Your task to perform on an android device: Open internet settings Image 0: 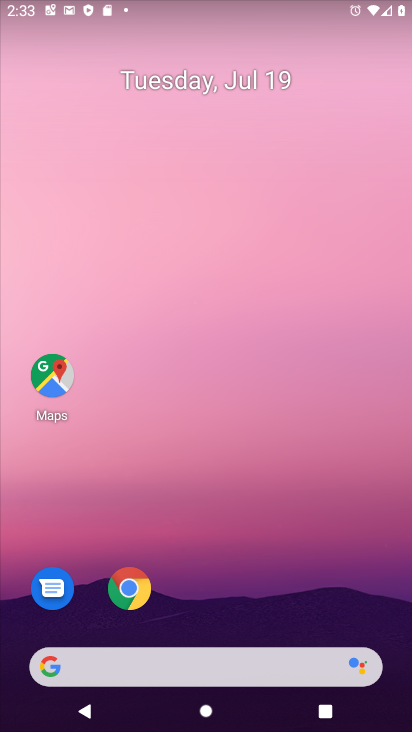
Step 0: drag from (324, 597) to (254, 71)
Your task to perform on an android device: Open internet settings Image 1: 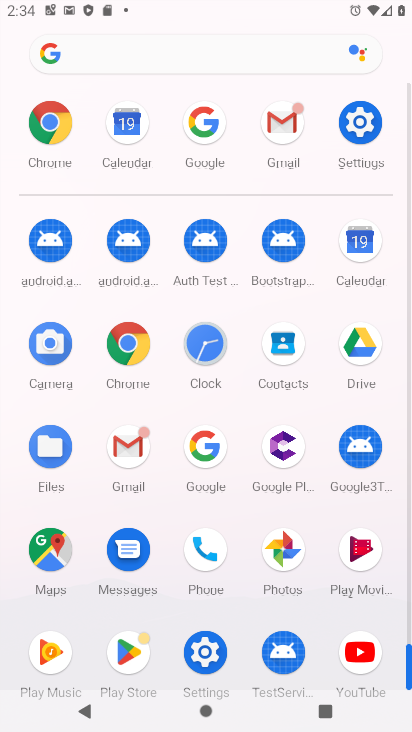
Step 1: click (201, 649)
Your task to perform on an android device: Open internet settings Image 2: 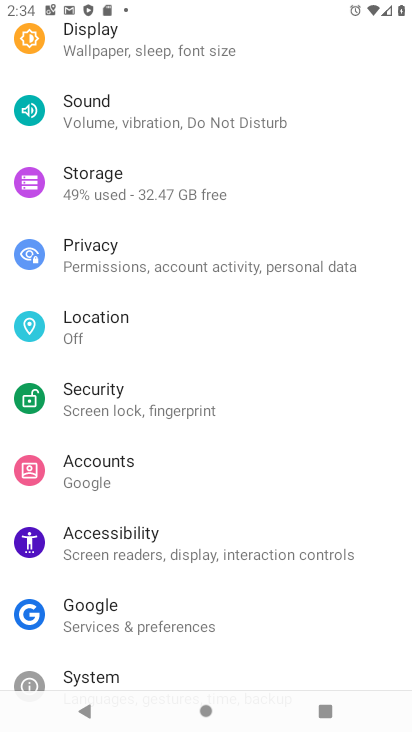
Step 2: drag from (123, 109) to (218, 578)
Your task to perform on an android device: Open internet settings Image 3: 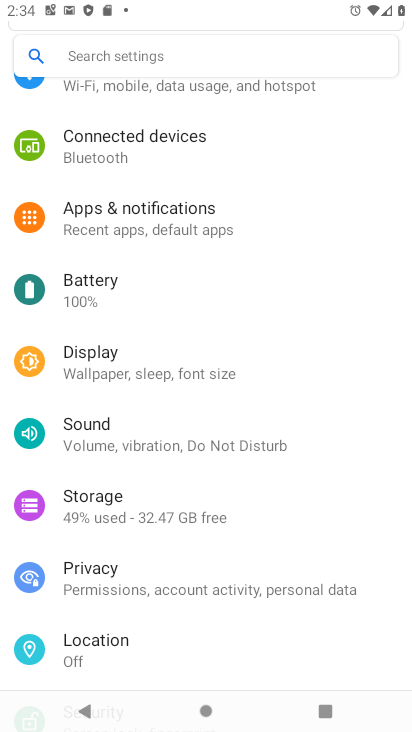
Step 3: drag from (139, 114) to (220, 605)
Your task to perform on an android device: Open internet settings Image 4: 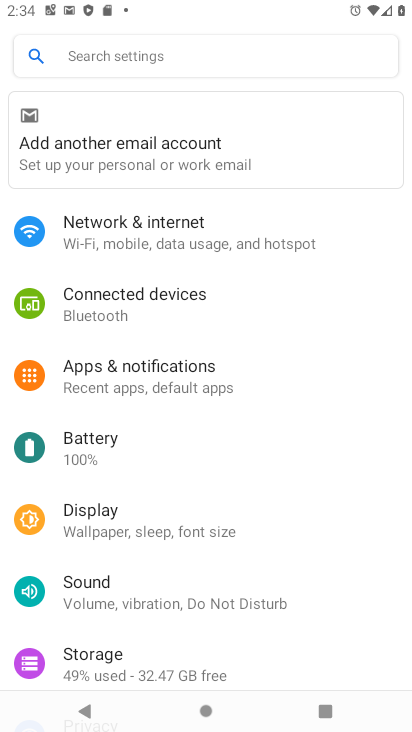
Step 4: click (156, 242)
Your task to perform on an android device: Open internet settings Image 5: 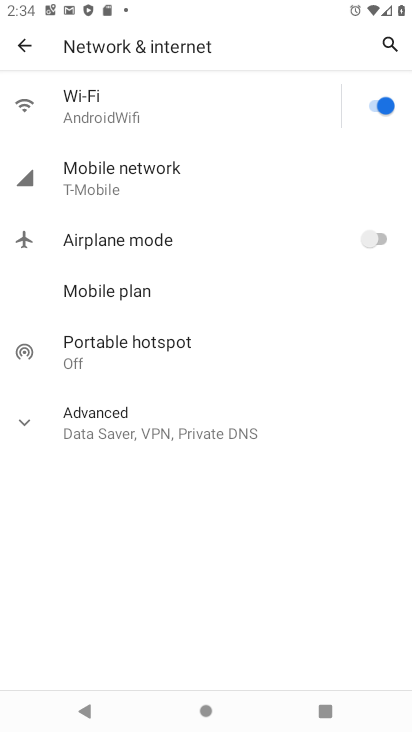
Step 5: task complete